Your task to perform on an android device: turn off airplane mode Image 0: 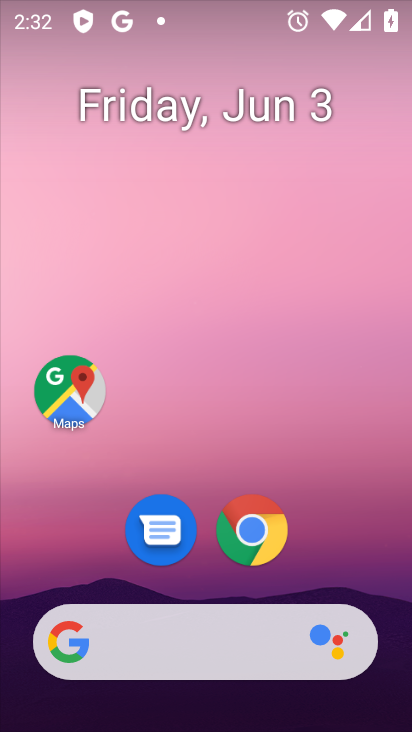
Step 0: drag from (232, 20) to (181, 614)
Your task to perform on an android device: turn off airplane mode Image 1: 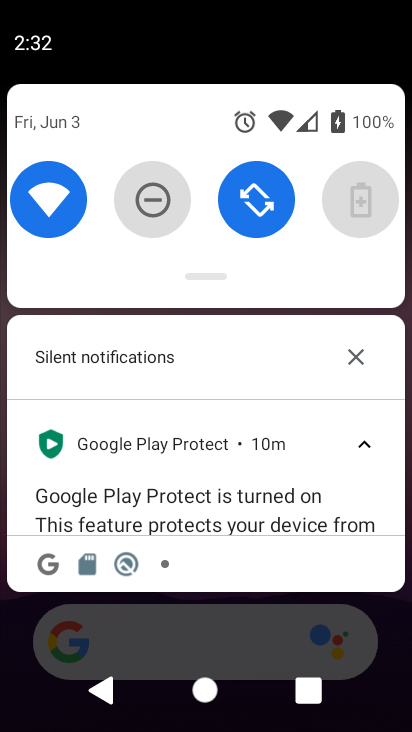
Step 1: drag from (200, 294) to (133, 611)
Your task to perform on an android device: turn off airplane mode Image 2: 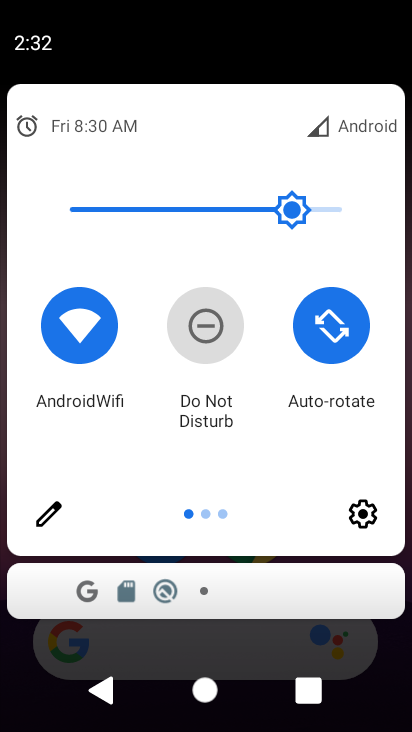
Step 2: click (44, 508)
Your task to perform on an android device: turn off airplane mode Image 3: 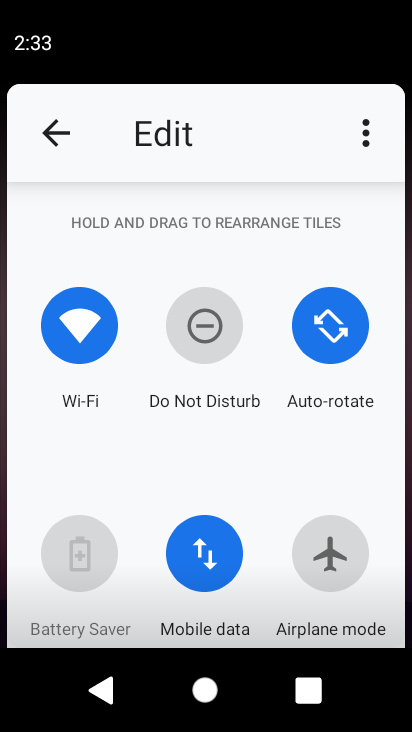
Step 3: task complete